Your task to perform on an android device: open app "Roku - Official Remote Control" (install if not already installed) and go to login screen Image 0: 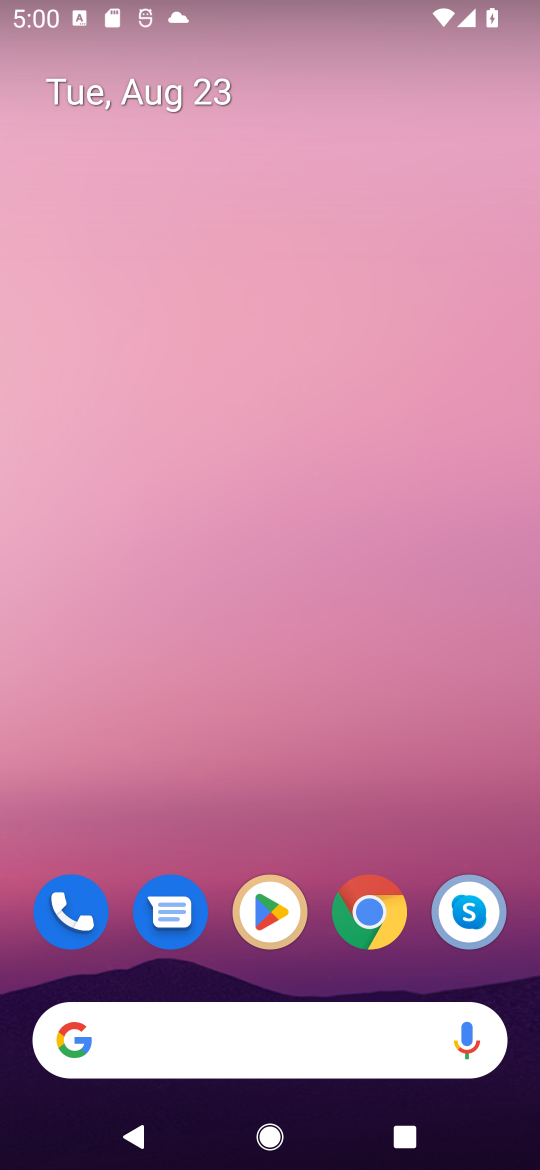
Step 0: drag from (215, 1006) to (355, 26)
Your task to perform on an android device: open app "Roku - Official Remote Control" (install if not already installed) and go to login screen Image 1: 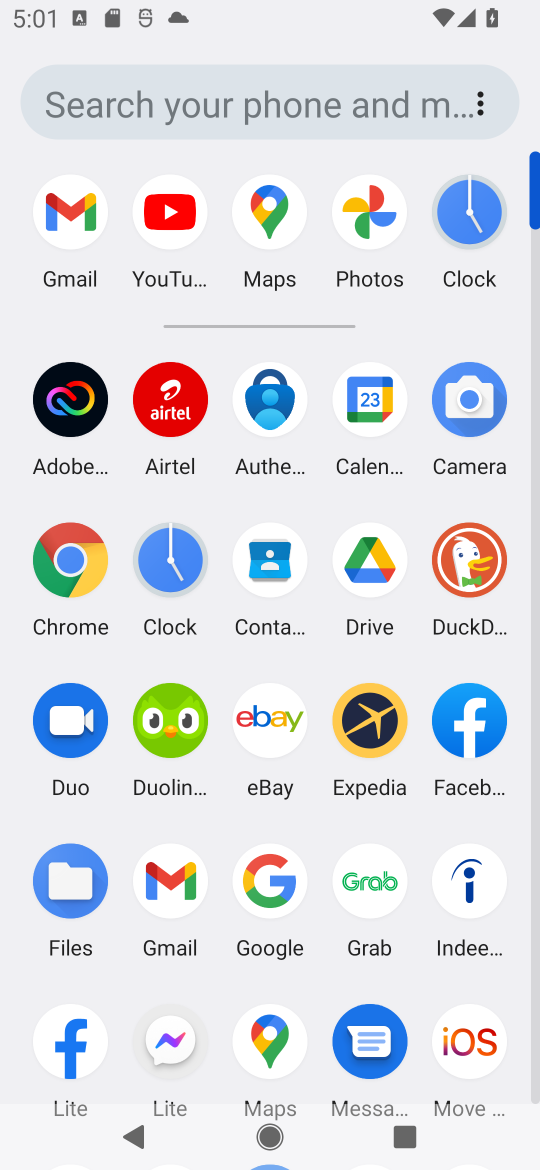
Step 1: drag from (206, 987) to (234, 438)
Your task to perform on an android device: open app "Roku - Official Remote Control" (install if not already installed) and go to login screen Image 2: 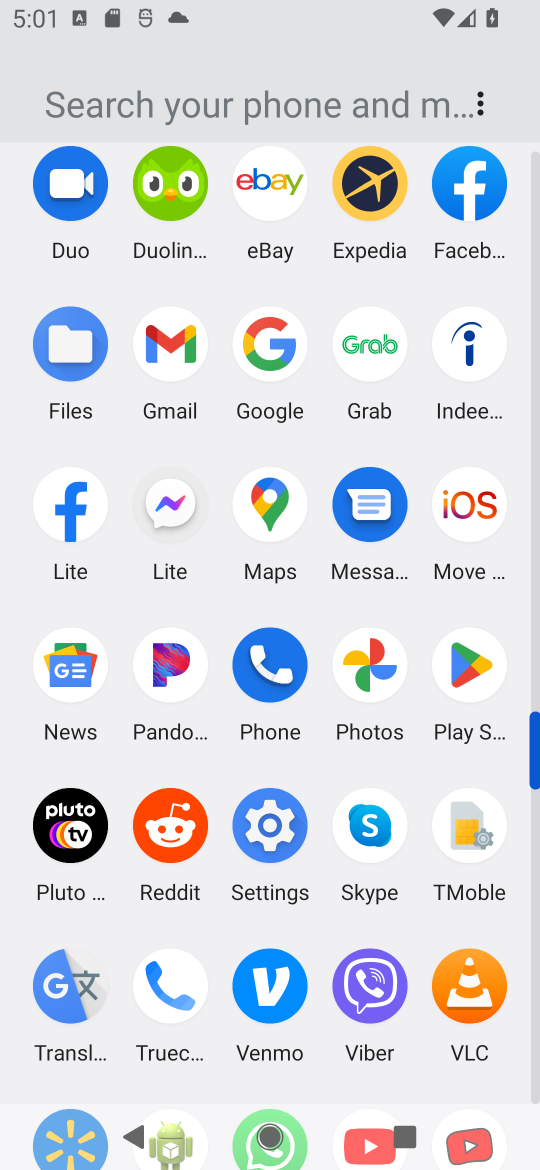
Step 2: click (467, 666)
Your task to perform on an android device: open app "Roku - Official Remote Control" (install if not already installed) and go to login screen Image 3: 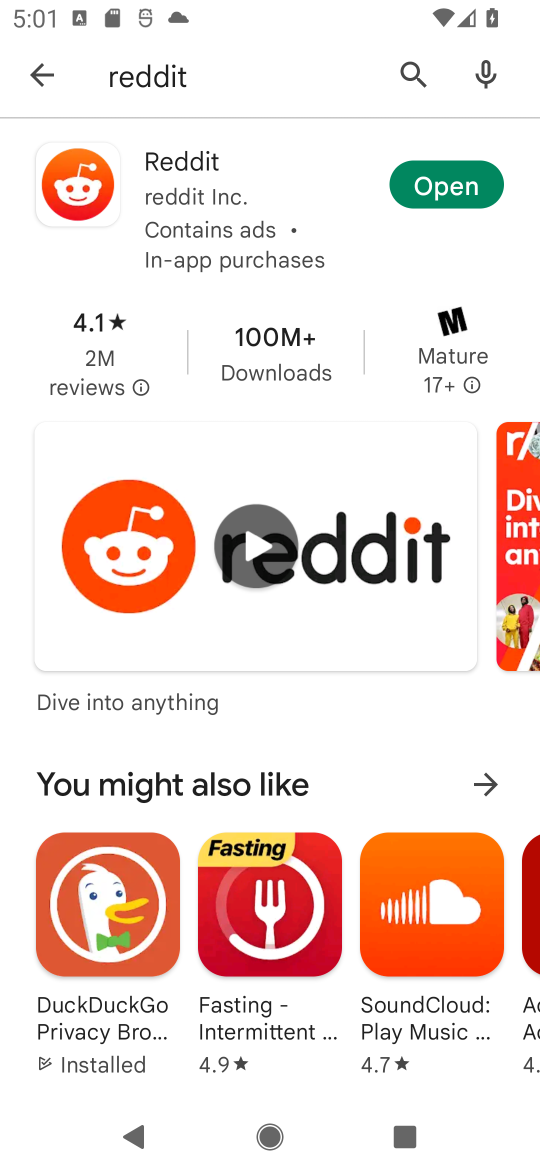
Step 3: press back button
Your task to perform on an android device: open app "Roku - Official Remote Control" (install if not already installed) and go to login screen Image 4: 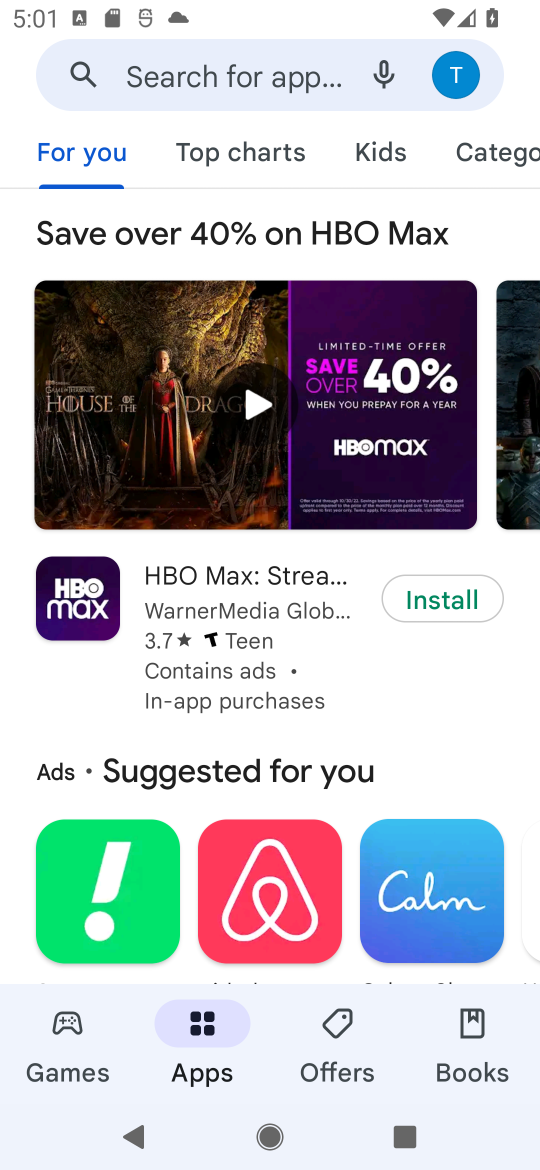
Step 4: click (241, 78)
Your task to perform on an android device: open app "Roku - Official Remote Control" (install if not already installed) and go to login screen Image 5: 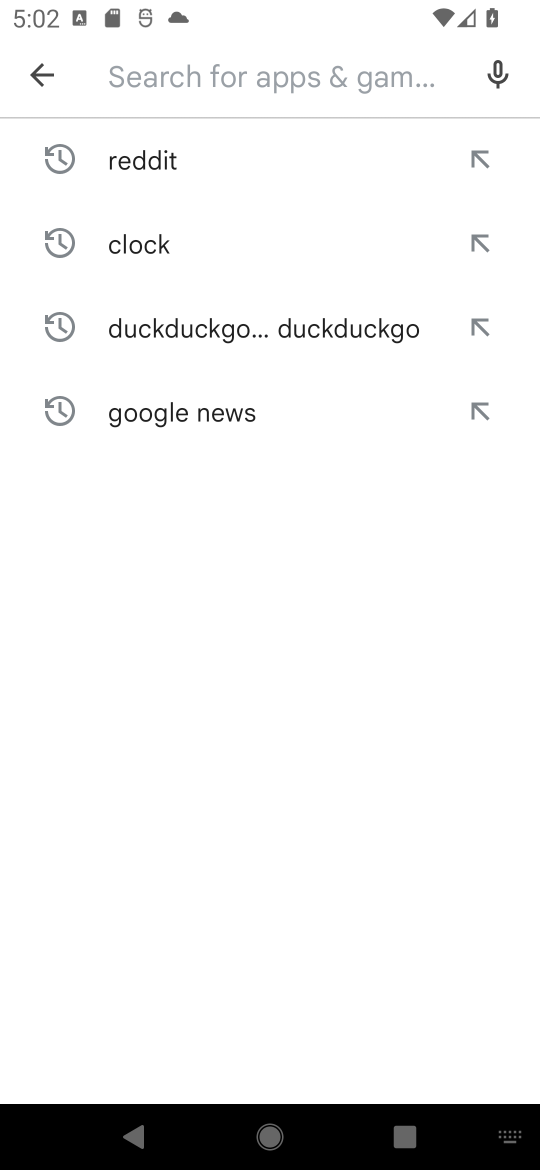
Step 5: type "Roku - Official Remote Control"
Your task to perform on an android device: open app "Roku - Official Remote Control" (install if not already installed) and go to login screen Image 6: 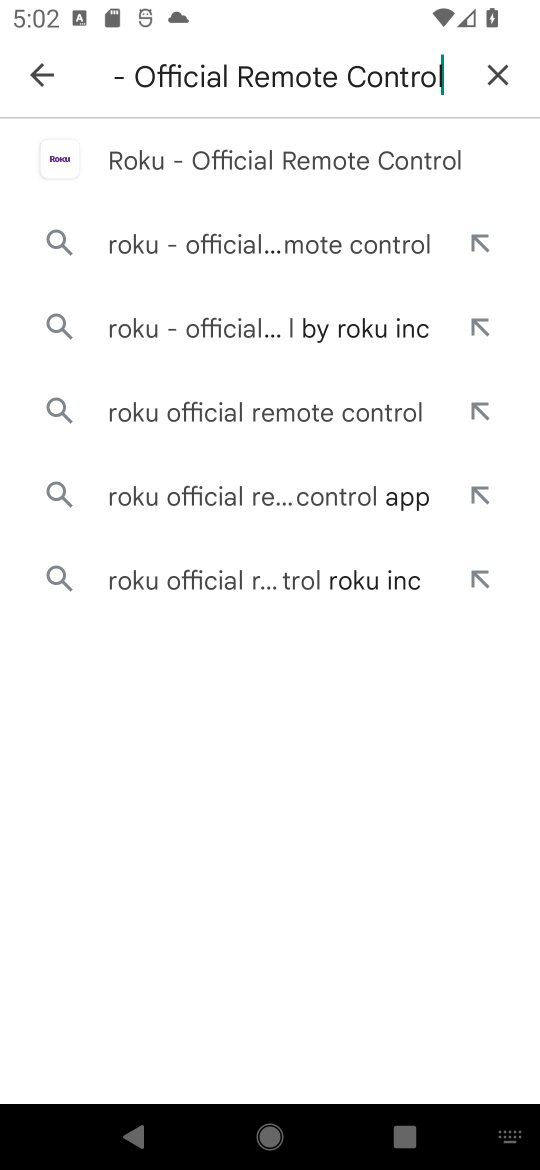
Step 6: click (233, 174)
Your task to perform on an android device: open app "Roku - Official Remote Control" (install if not already installed) and go to login screen Image 7: 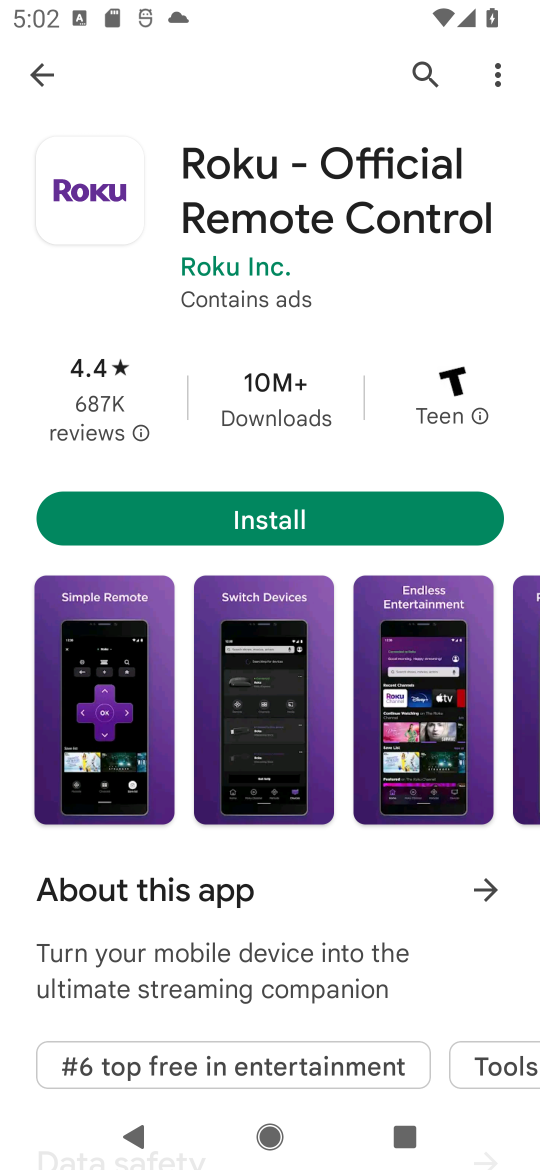
Step 7: click (264, 530)
Your task to perform on an android device: open app "Roku - Official Remote Control" (install if not already installed) and go to login screen Image 8: 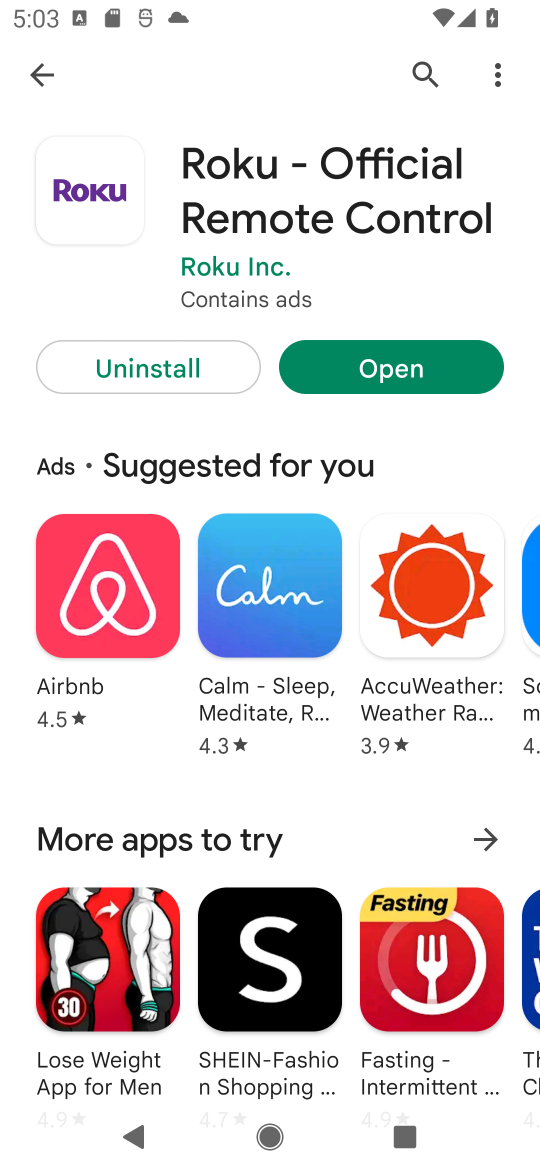
Step 8: click (408, 369)
Your task to perform on an android device: open app "Roku - Official Remote Control" (install if not already installed) and go to login screen Image 9: 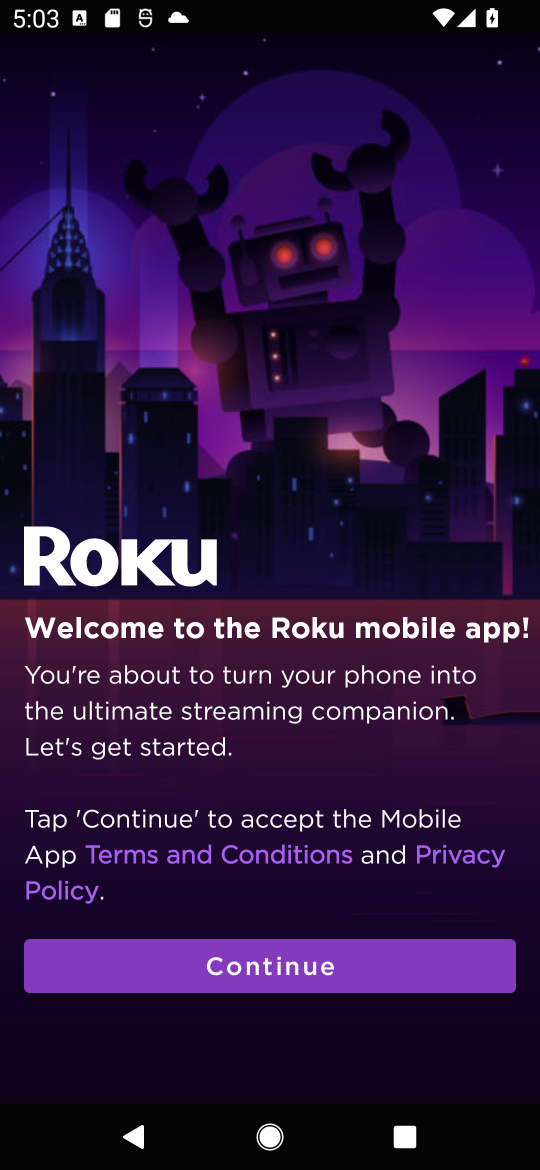
Step 9: click (265, 982)
Your task to perform on an android device: open app "Roku - Official Remote Control" (install if not already installed) and go to login screen Image 10: 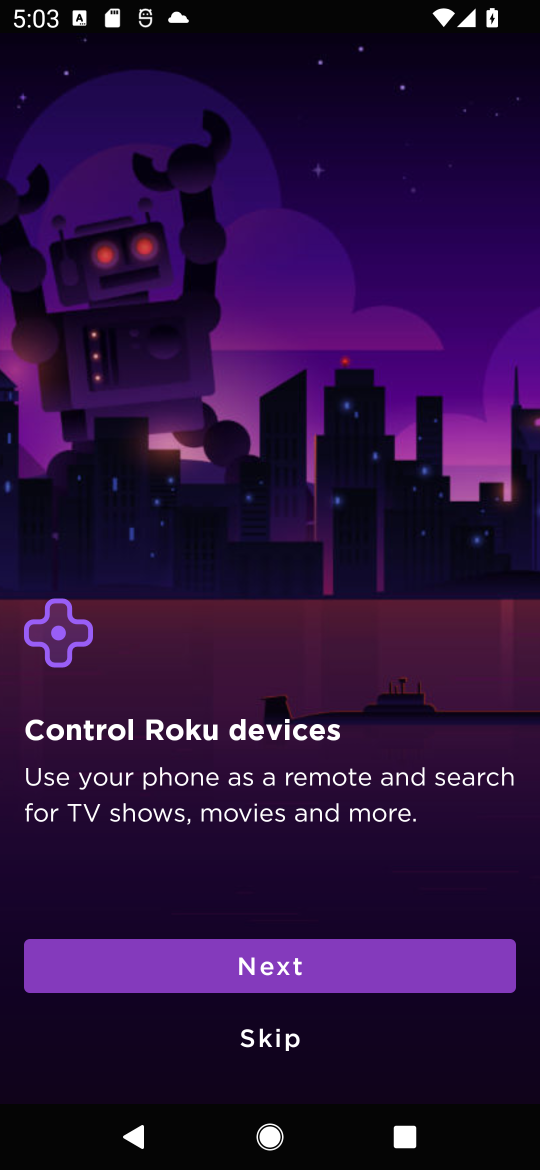
Step 10: click (265, 982)
Your task to perform on an android device: open app "Roku - Official Remote Control" (install if not already installed) and go to login screen Image 11: 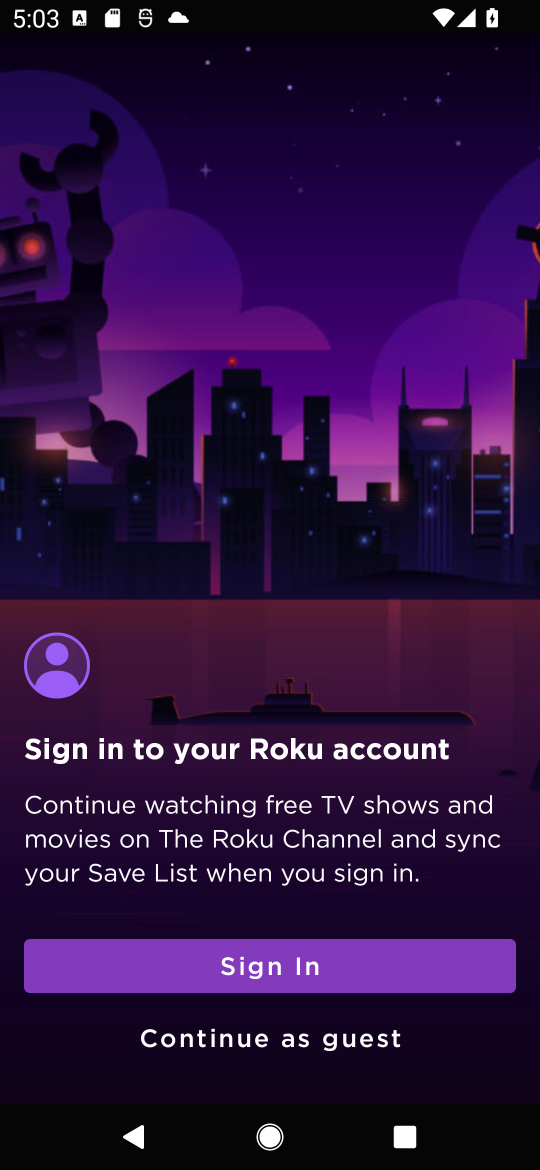
Step 11: click (265, 982)
Your task to perform on an android device: open app "Roku - Official Remote Control" (install if not already installed) and go to login screen Image 12: 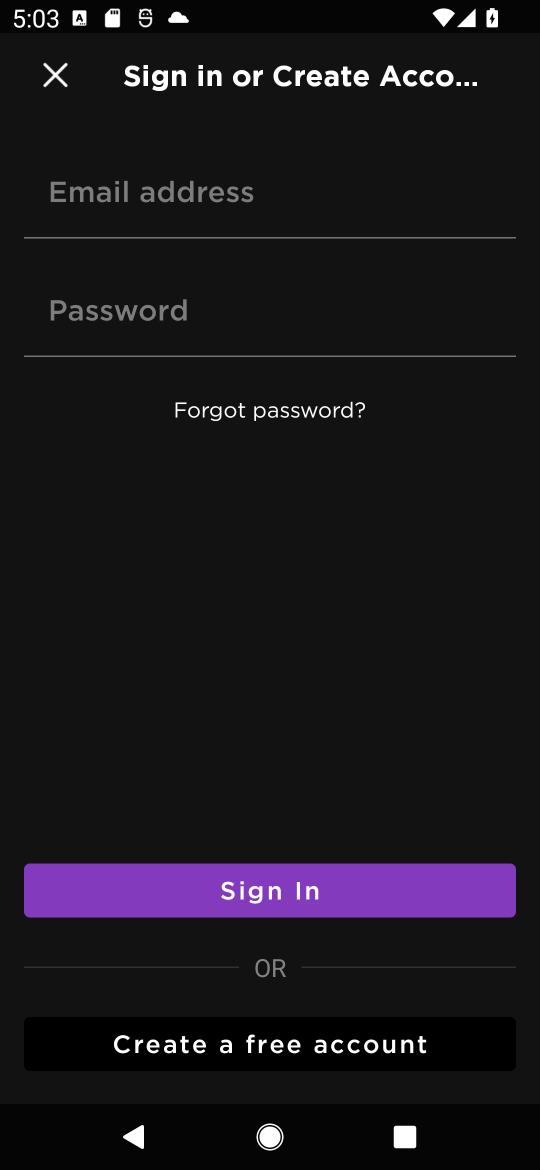
Step 12: task complete